Your task to perform on an android device: turn on javascript in the chrome app Image 0: 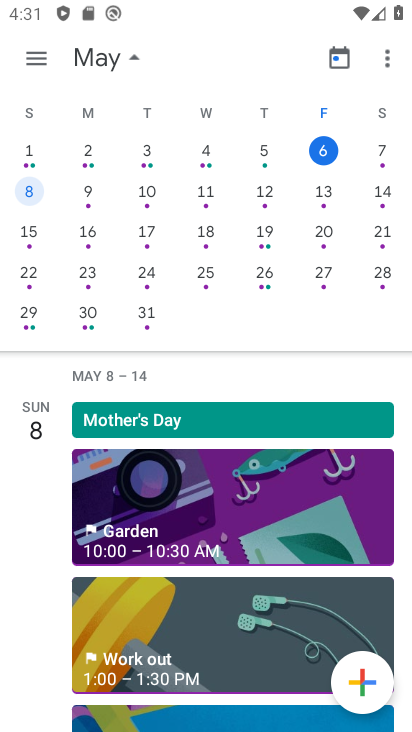
Step 0: task complete